Your task to perform on an android device: toggle notifications settings in the gmail app Image 0: 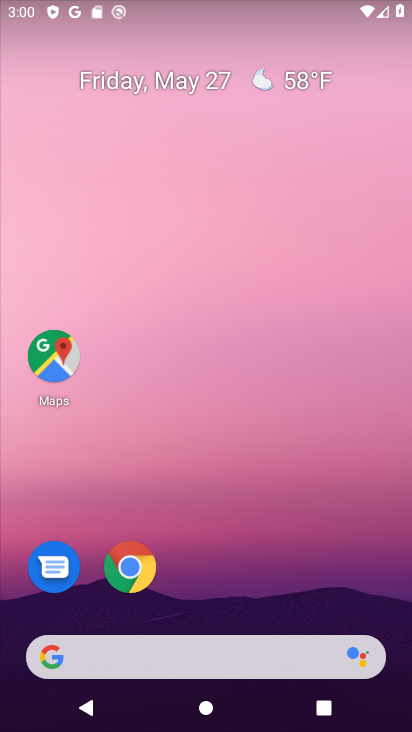
Step 0: drag from (225, 599) to (268, 153)
Your task to perform on an android device: toggle notifications settings in the gmail app Image 1: 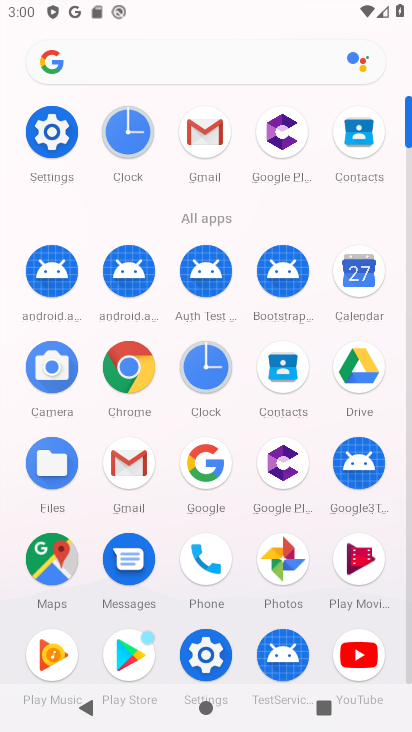
Step 1: click (202, 120)
Your task to perform on an android device: toggle notifications settings in the gmail app Image 2: 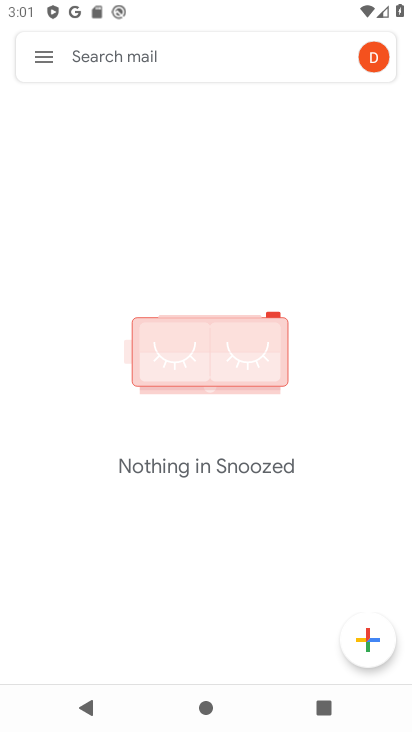
Step 2: click (47, 62)
Your task to perform on an android device: toggle notifications settings in the gmail app Image 3: 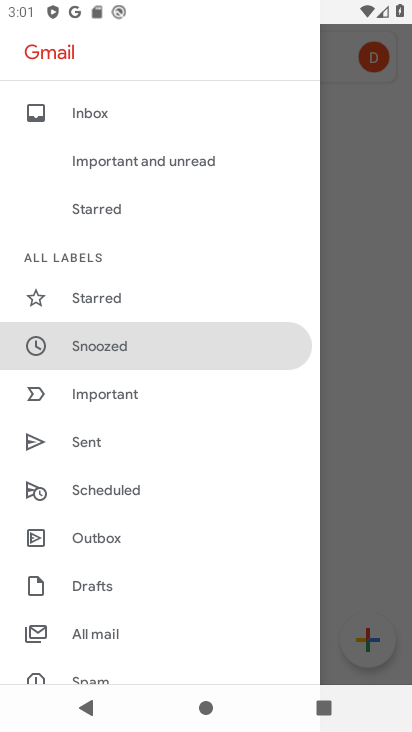
Step 3: drag from (156, 655) to (163, 66)
Your task to perform on an android device: toggle notifications settings in the gmail app Image 4: 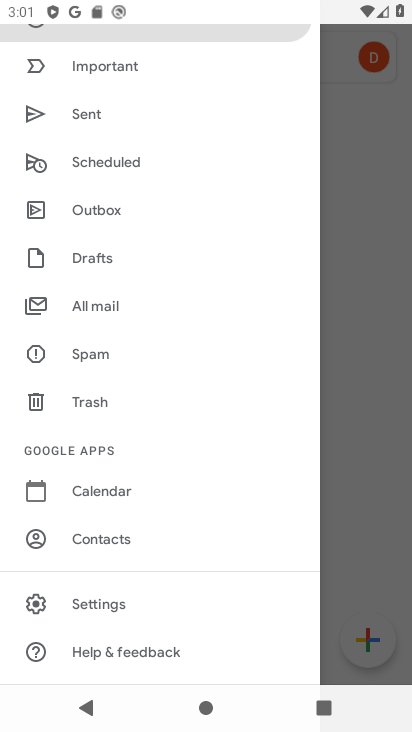
Step 4: click (139, 601)
Your task to perform on an android device: toggle notifications settings in the gmail app Image 5: 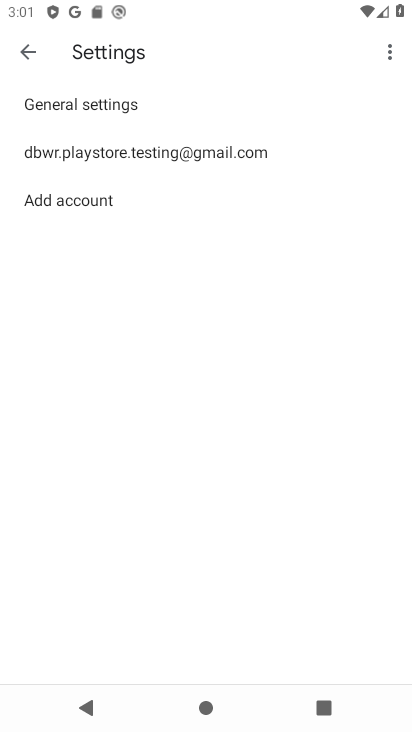
Step 5: click (159, 102)
Your task to perform on an android device: toggle notifications settings in the gmail app Image 6: 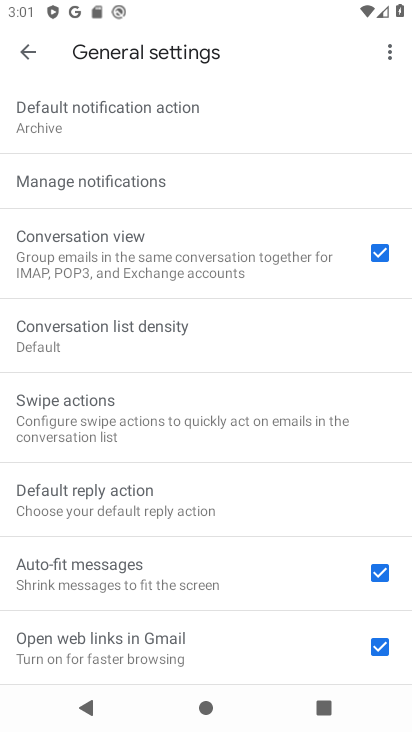
Step 6: click (180, 180)
Your task to perform on an android device: toggle notifications settings in the gmail app Image 7: 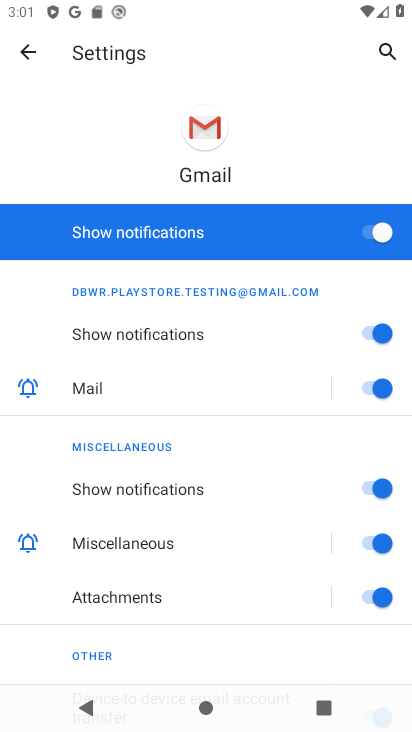
Step 7: click (375, 228)
Your task to perform on an android device: toggle notifications settings in the gmail app Image 8: 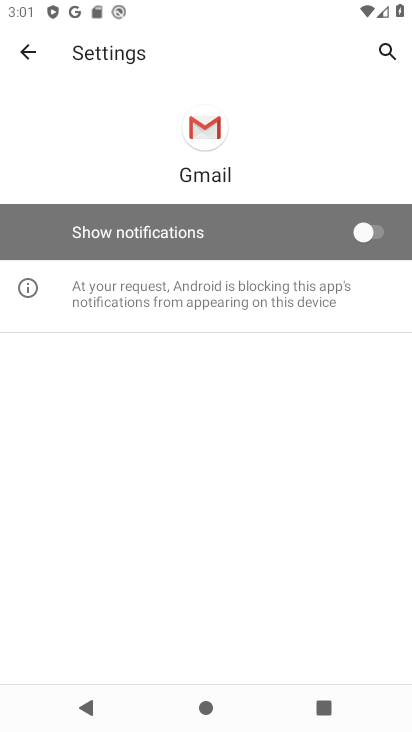
Step 8: task complete